Your task to perform on an android device: turn off improve location accuracy Image 0: 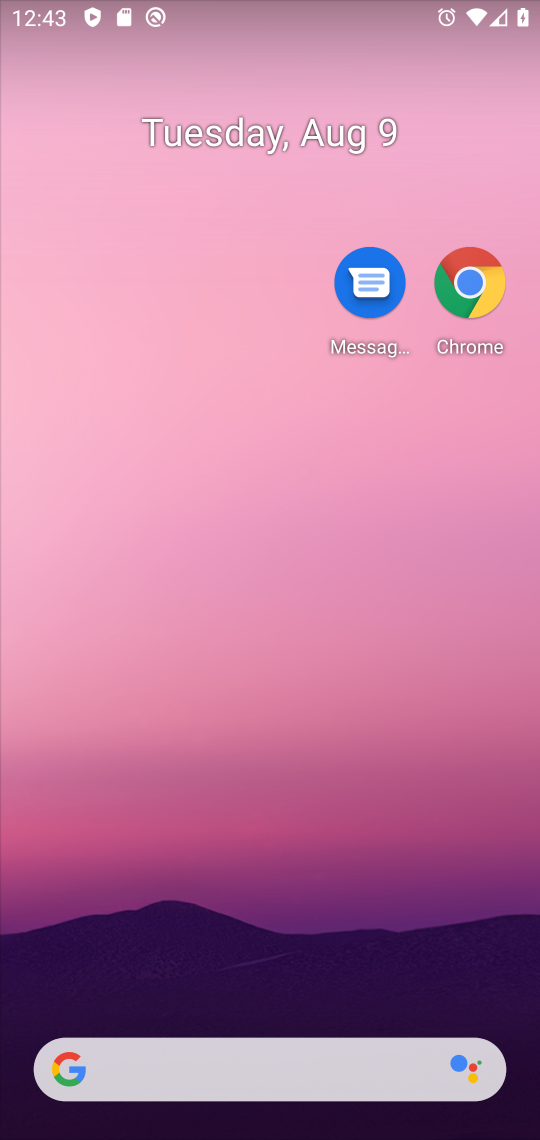
Step 0: drag from (410, 264) to (462, 1039)
Your task to perform on an android device: turn off improve location accuracy Image 1: 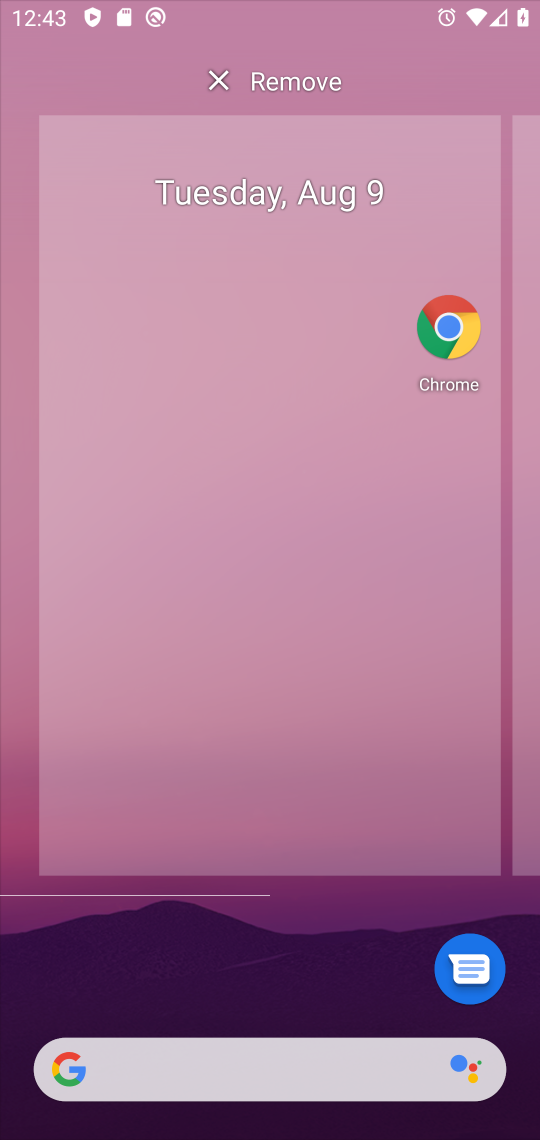
Step 1: drag from (265, 963) to (346, 214)
Your task to perform on an android device: turn off improve location accuracy Image 2: 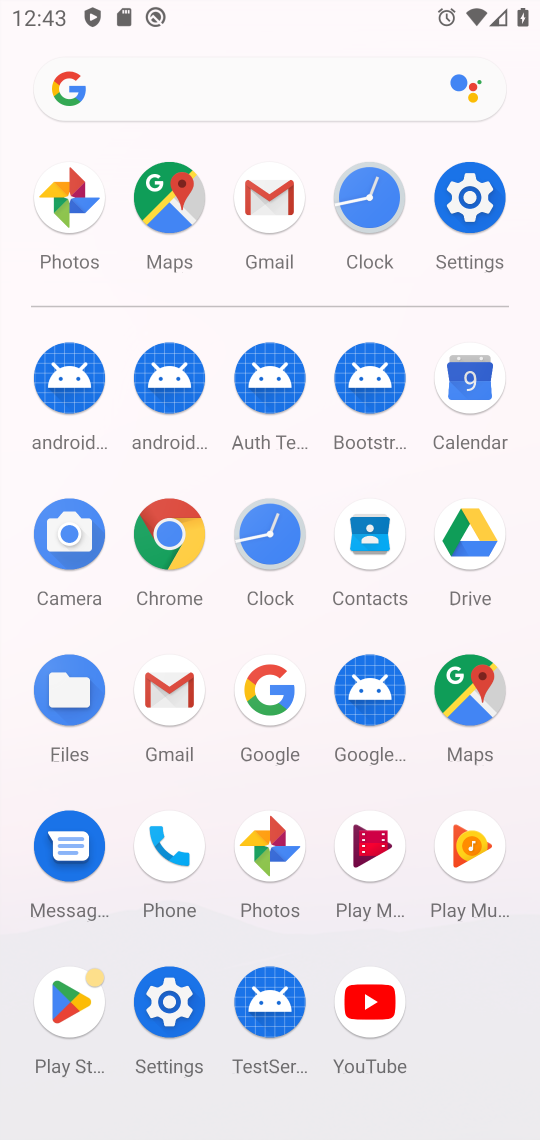
Step 2: click (465, 202)
Your task to perform on an android device: turn off improve location accuracy Image 3: 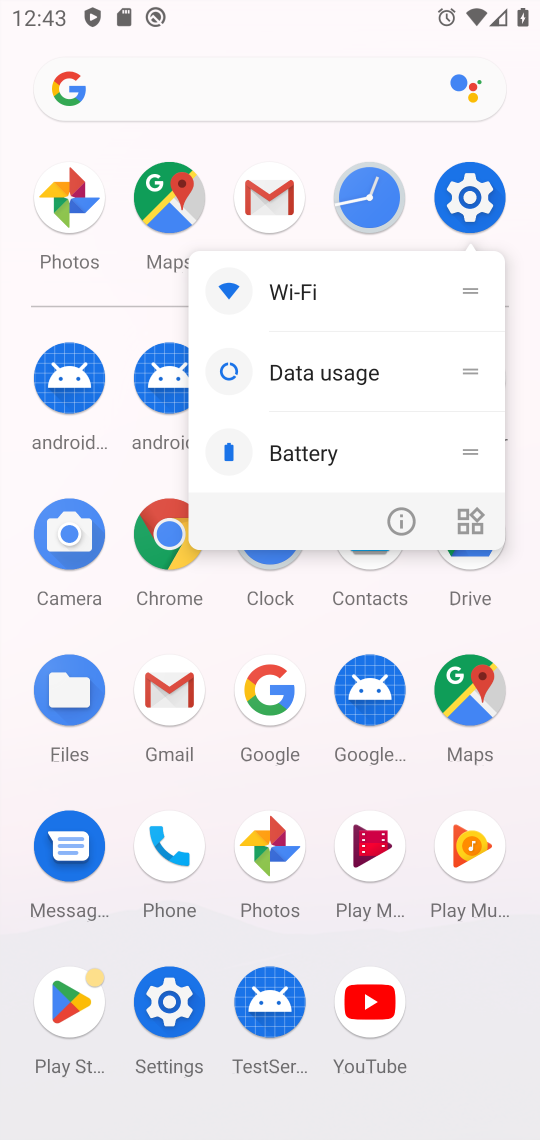
Step 3: click (398, 514)
Your task to perform on an android device: turn off improve location accuracy Image 4: 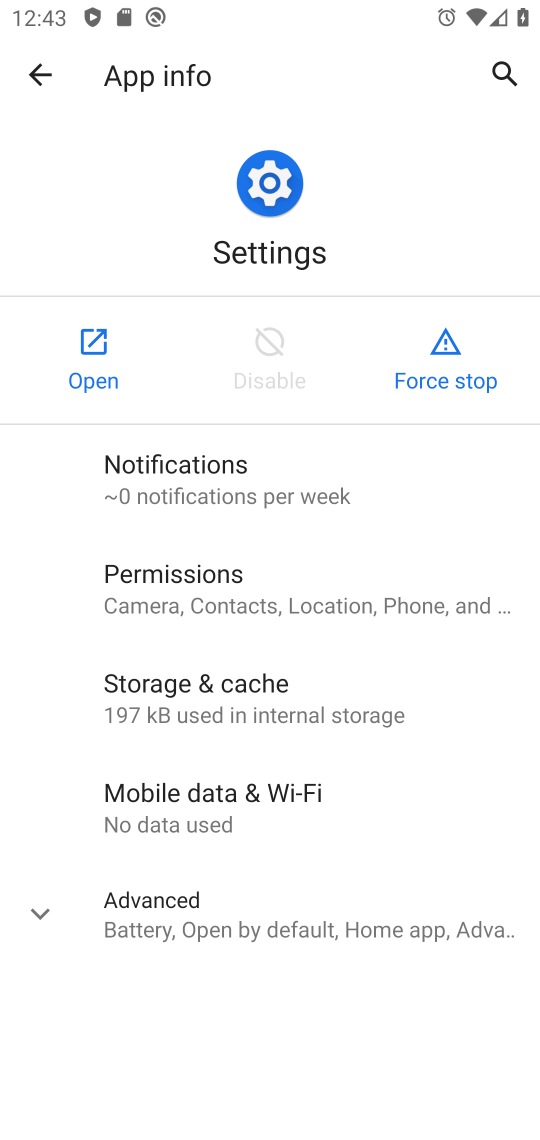
Step 4: click (98, 359)
Your task to perform on an android device: turn off improve location accuracy Image 5: 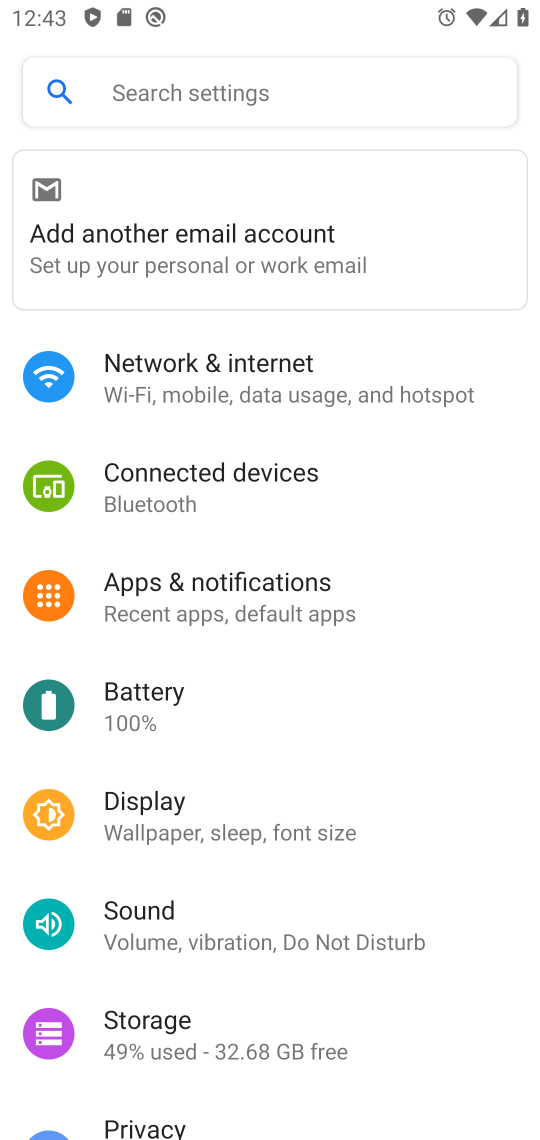
Step 5: drag from (305, 1018) to (496, 542)
Your task to perform on an android device: turn off improve location accuracy Image 6: 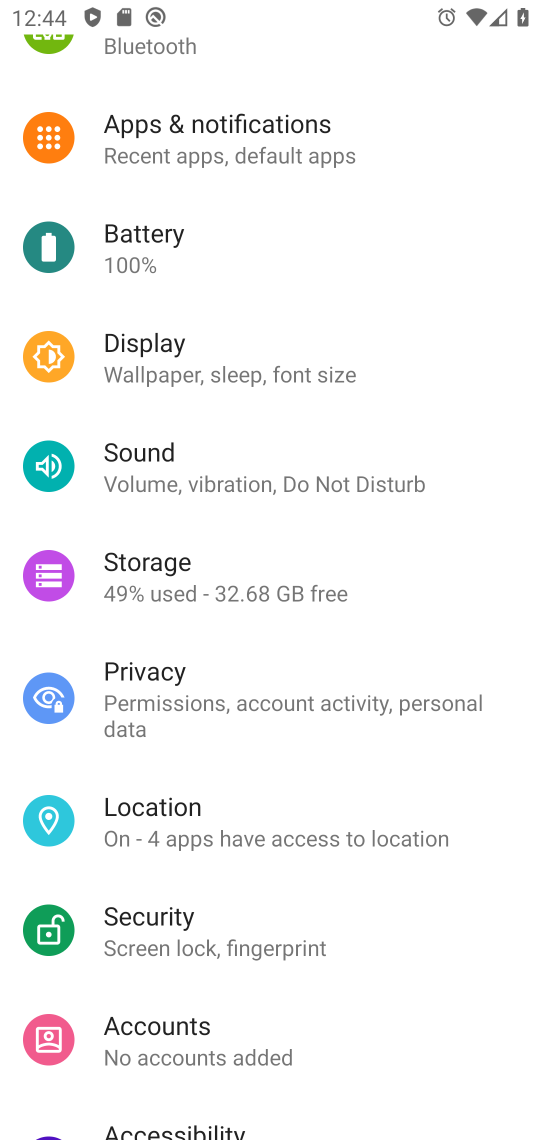
Step 6: click (165, 833)
Your task to perform on an android device: turn off improve location accuracy Image 7: 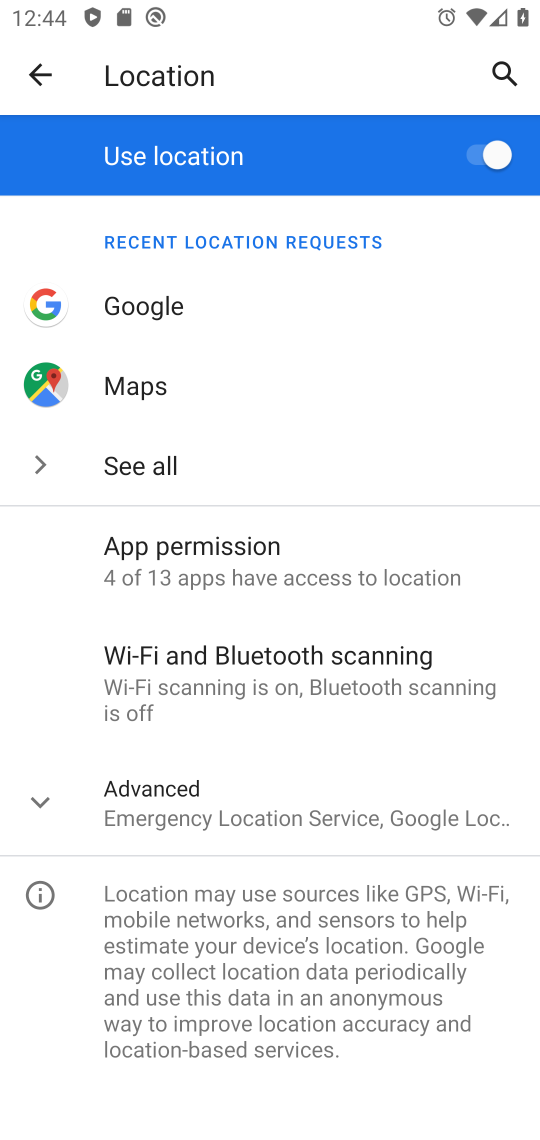
Step 7: click (221, 820)
Your task to perform on an android device: turn off improve location accuracy Image 8: 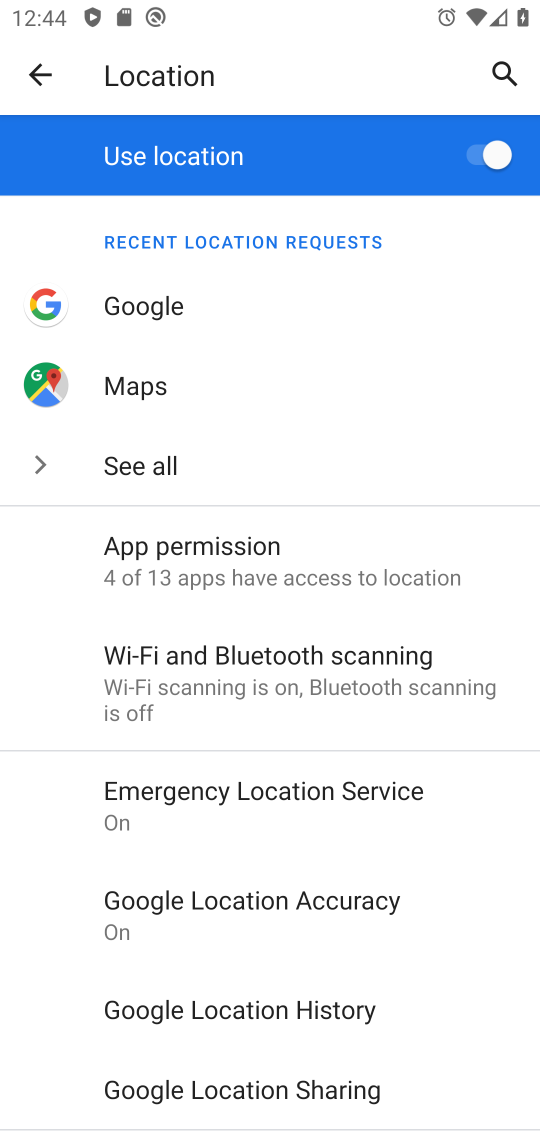
Step 8: click (295, 898)
Your task to perform on an android device: turn off improve location accuracy Image 9: 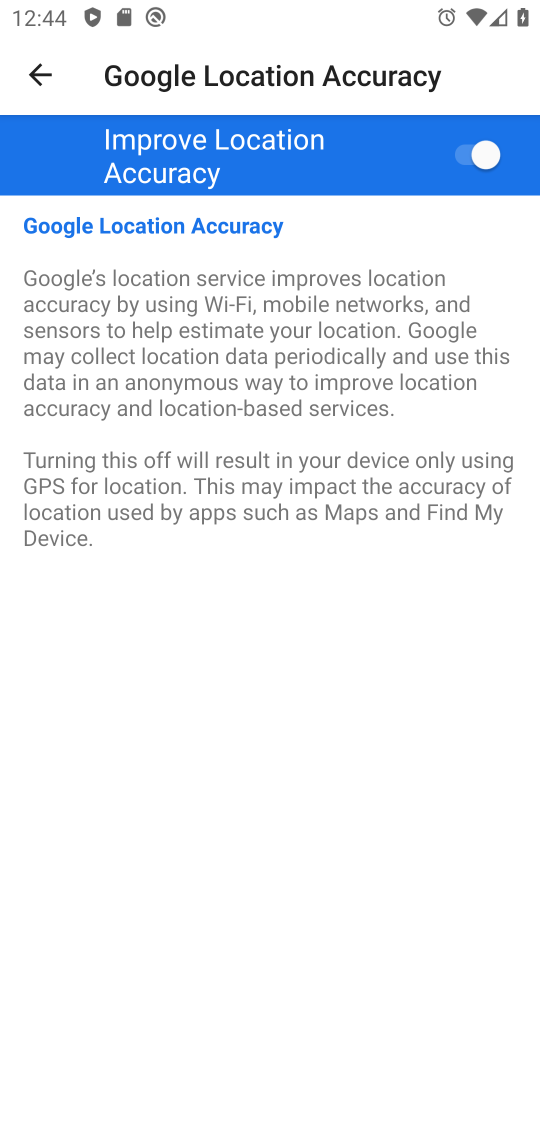
Step 9: click (483, 151)
Your task to perform on an android device: turn off improve location accuracy Image 10: 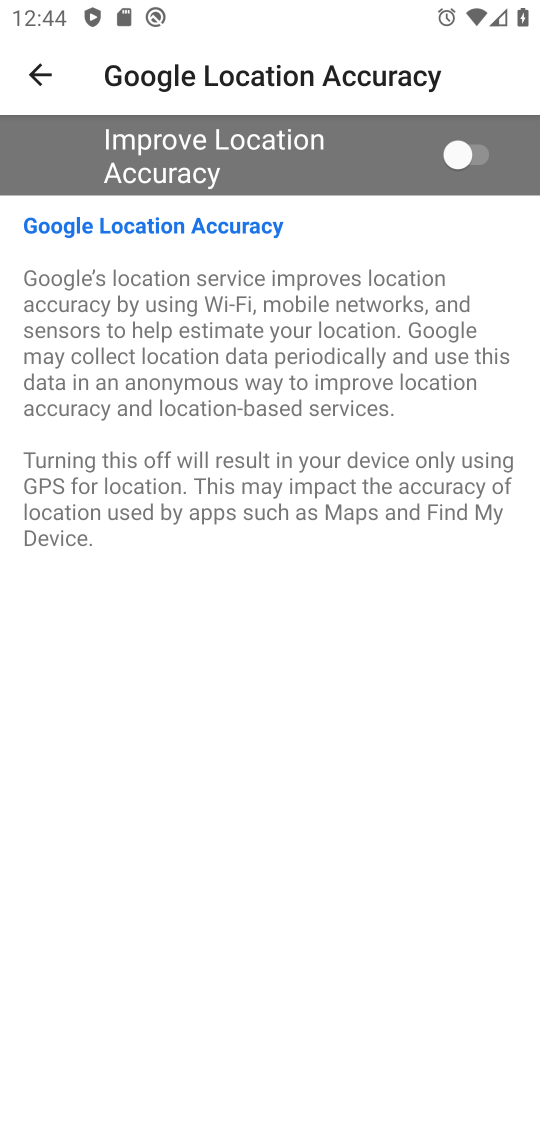
Step 10: task complete